Your task to perform on an android device: add a contact Image 0: 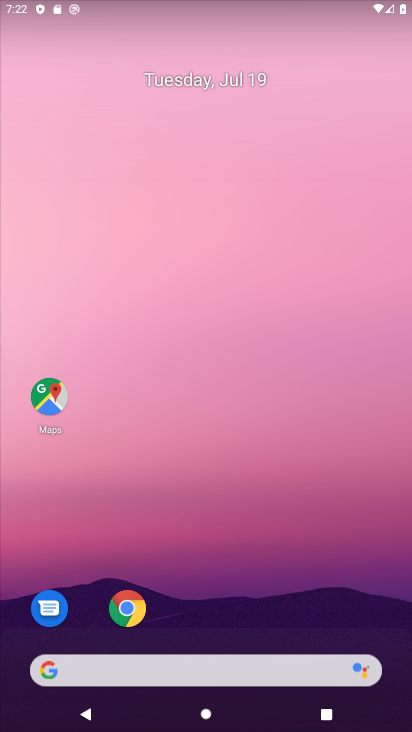
Step 0: drag from (182, 674) to (235, 205)
Your task to perform on an android device: add a contact Image 1: 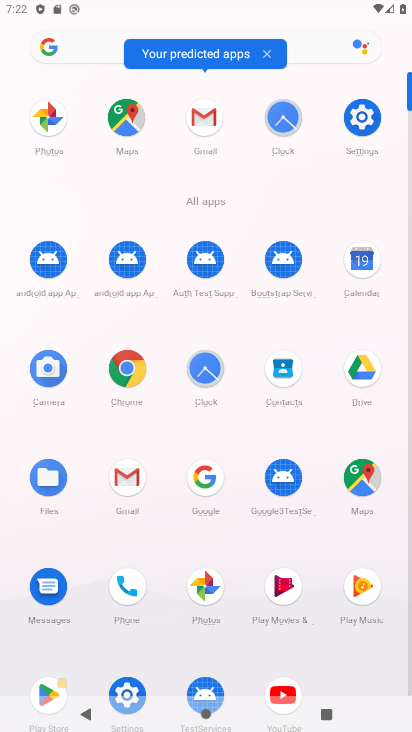
Step 1: click (283, 368)
Your task to perform on an android device: add a contact Image 2: 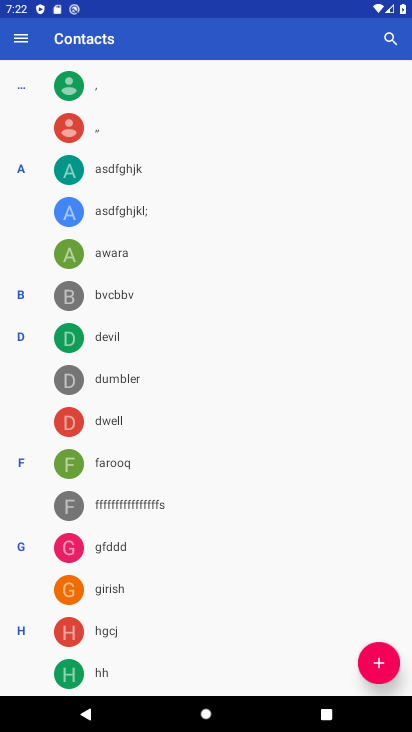
Step 2: click (381, 661)
Your task to perform on an android device: add a contact Image 3: 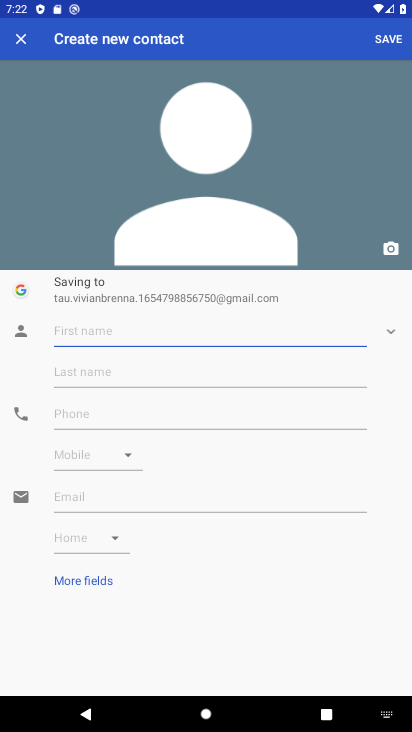
Step 3: type "detwqq"
Your task to perform on an android device: add a contact Image 4: 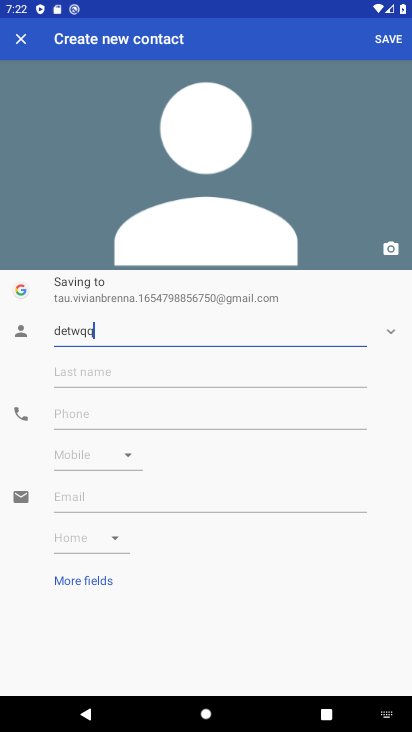
Step 4: click (83, 409)
Your task to perform on an android device: add a contact Image 5: 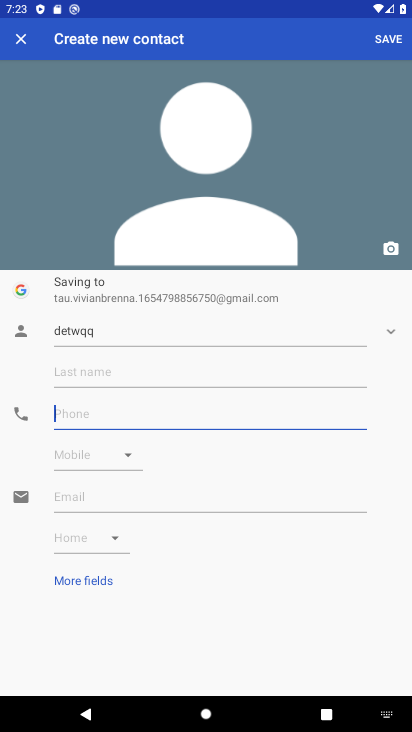
Step 5: type "84433221"
Your task to perform on an android device: add a contact Image 6: 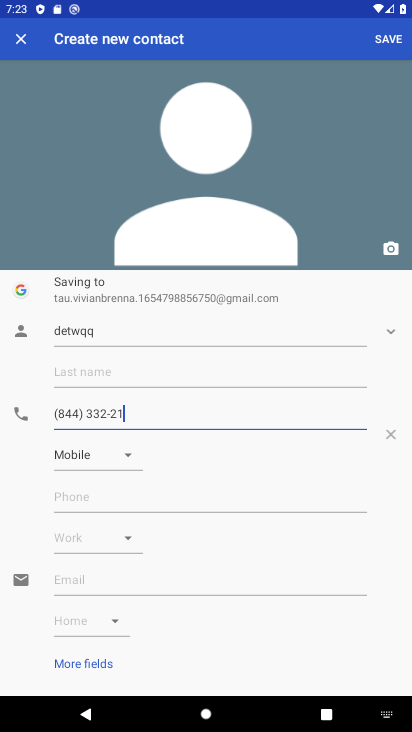
Step 6: click (393, 39)
Your task to perform on an android device: add a contact Image 7: 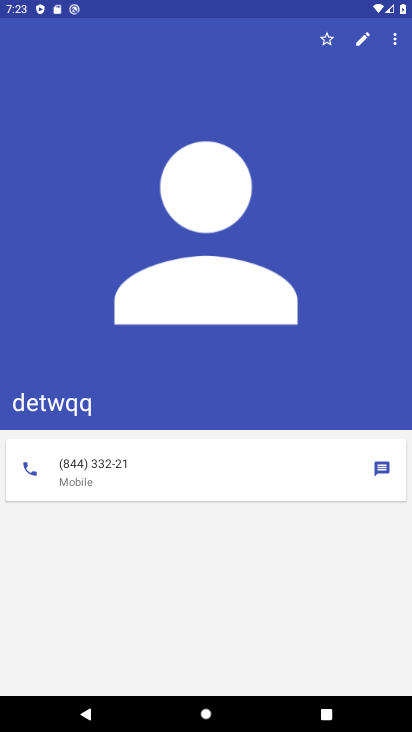
Step 7: task complete